Your task to perform on an android device: Open CNN.com Image 0: 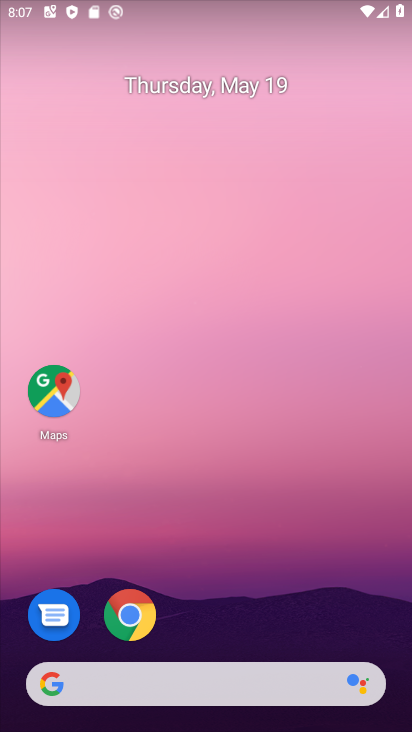
Step 0: drag from (233, 599) to (253, 50)
Your task to perform on an android device: Open CNN.com Image 1: 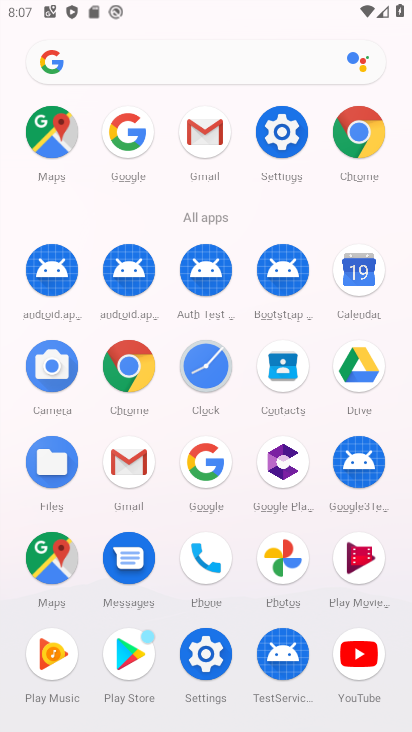
Step 1: click (202, 460)
Your task to perform on an android device: Open CNN.com Image 2: 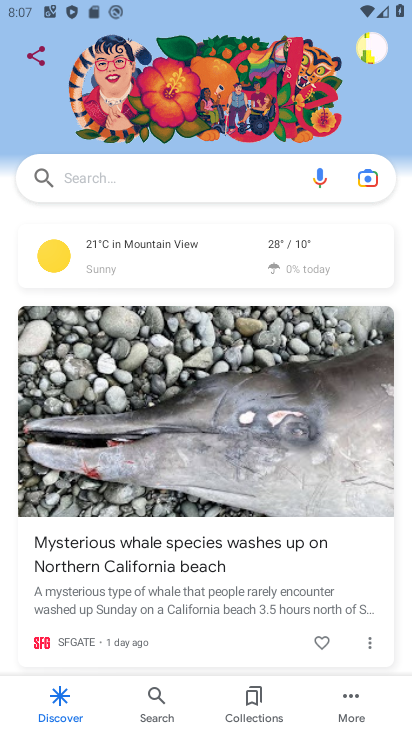
Step 2: click (146, 180)
Your task to perform on an android device: Open CNN.com Image 3: 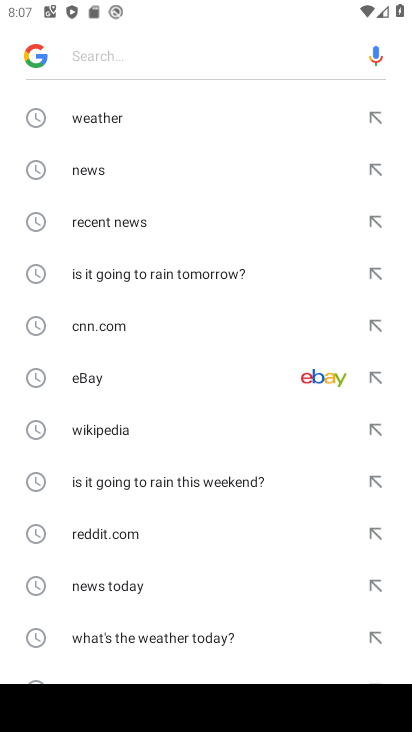
Step 3: click (133, 332)
Your task to perform on an android device: Open CNN.com Image 4: 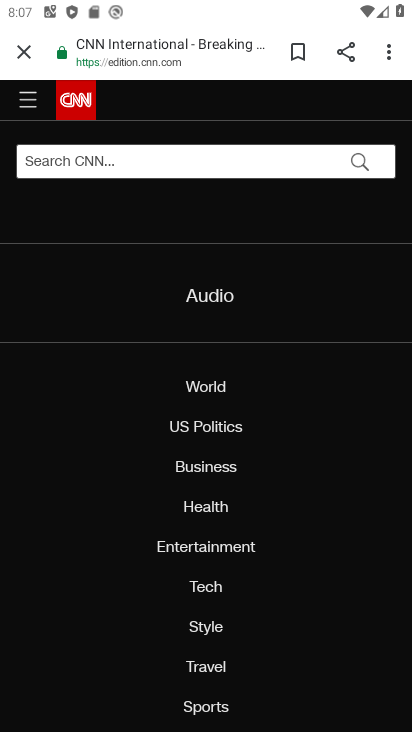
Step 4: task complete